Your task to perform on an android device: open app "LiveIn - Share Your Moment" Image 0: 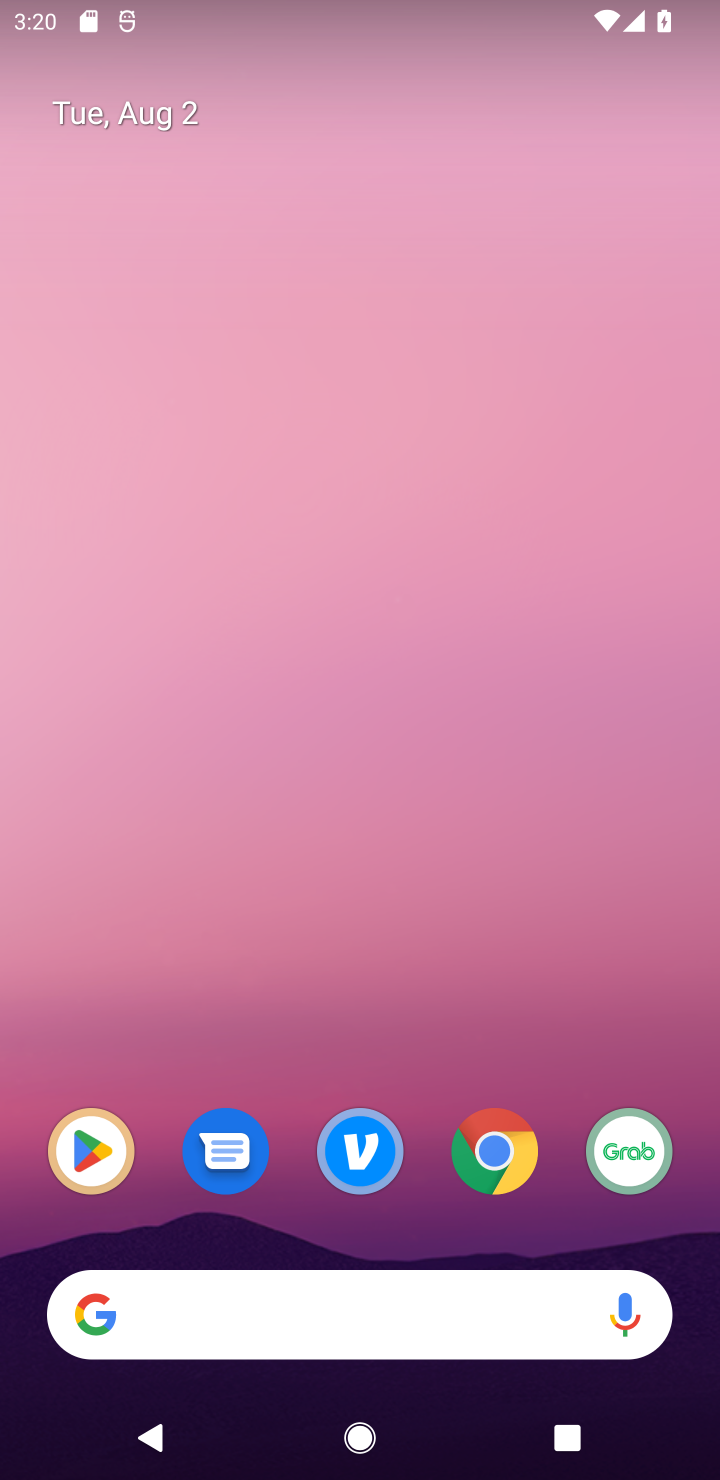
Step 0: drag from (503, 938) to (576, 329)
Your task to perform on an android device: open app "LiveIn - Share Your Moment" Image 1: 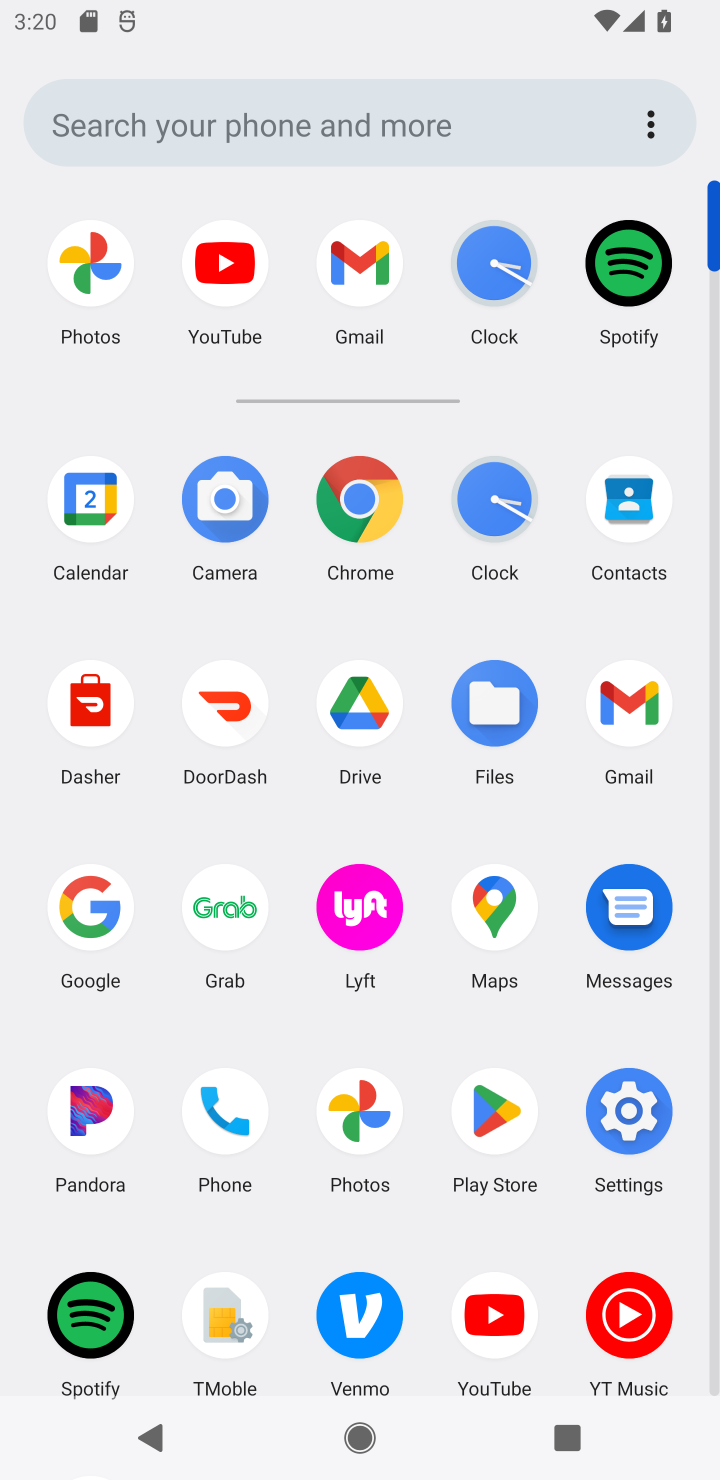
Step 1: drag from (396, 1054) to (442, 736)
Your task to perform on an android device: open app "LiveIn - Share Your Moment" Image 2: 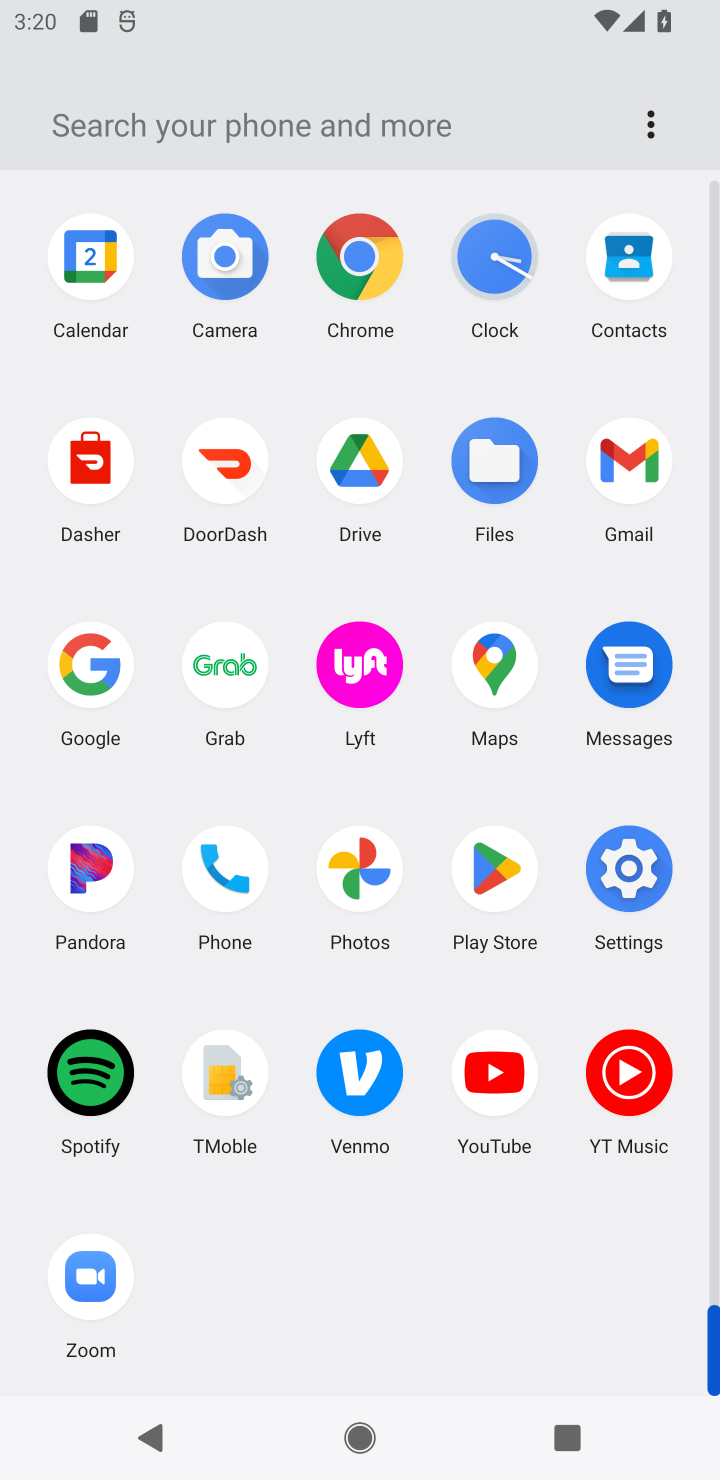
Step 2: drag from (358, 970) to (396, 1358)
Your task to perform on an android device: open app "LiveIn - Share Your Moment" Image 3: 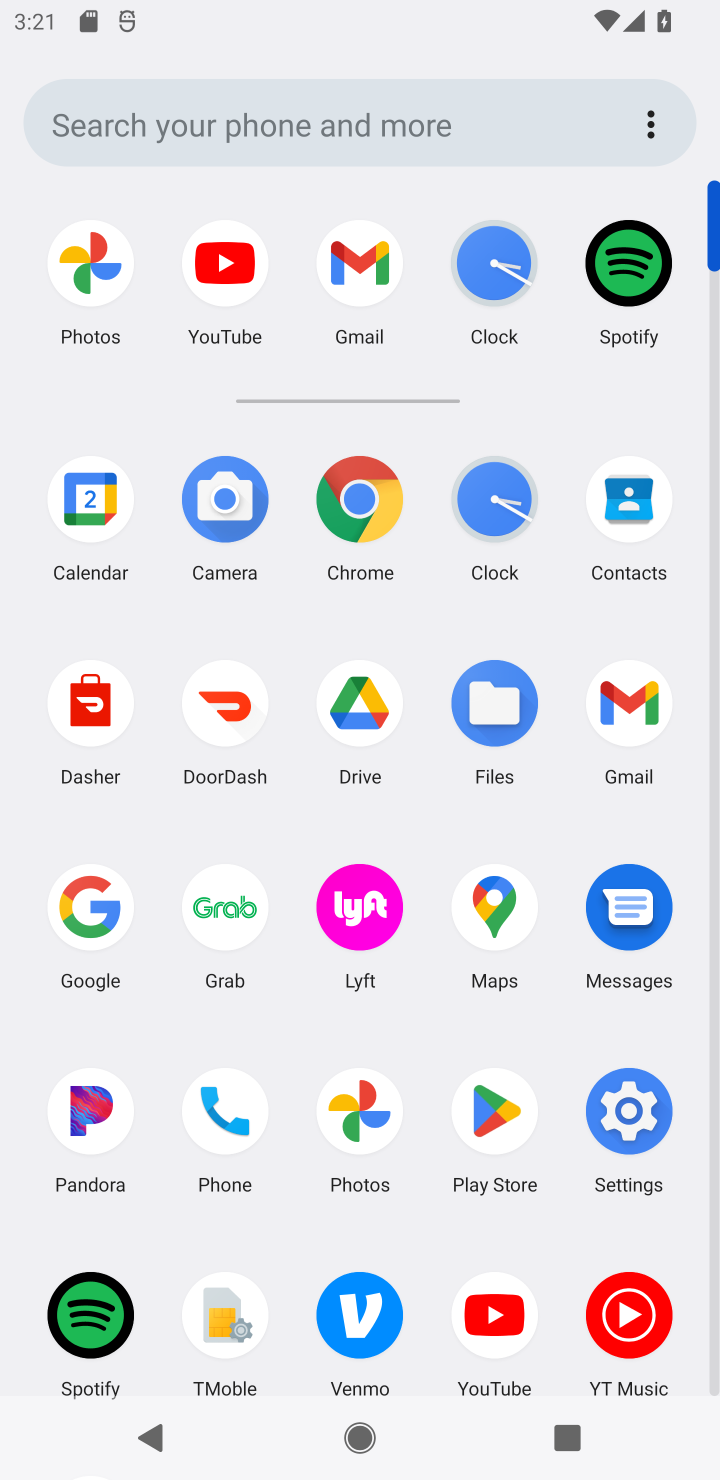
Step 3: click (500, 1125)
Your task to perform on an android device: open app "LiveIn - Share Your Moment" Image 4: 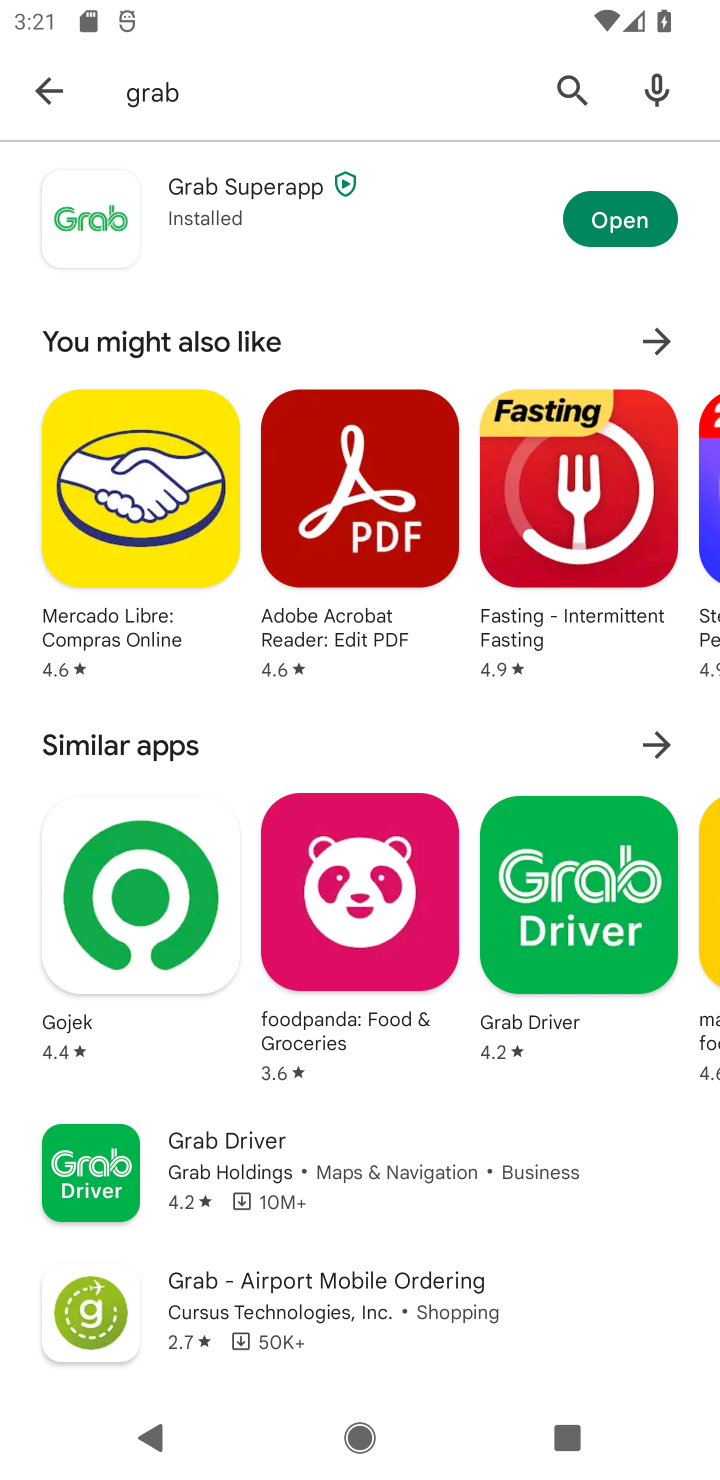
Step 4: click (66, 76)
Your task to perform on an android device: open app "LiveIn - Share Your Moment" Image 5: 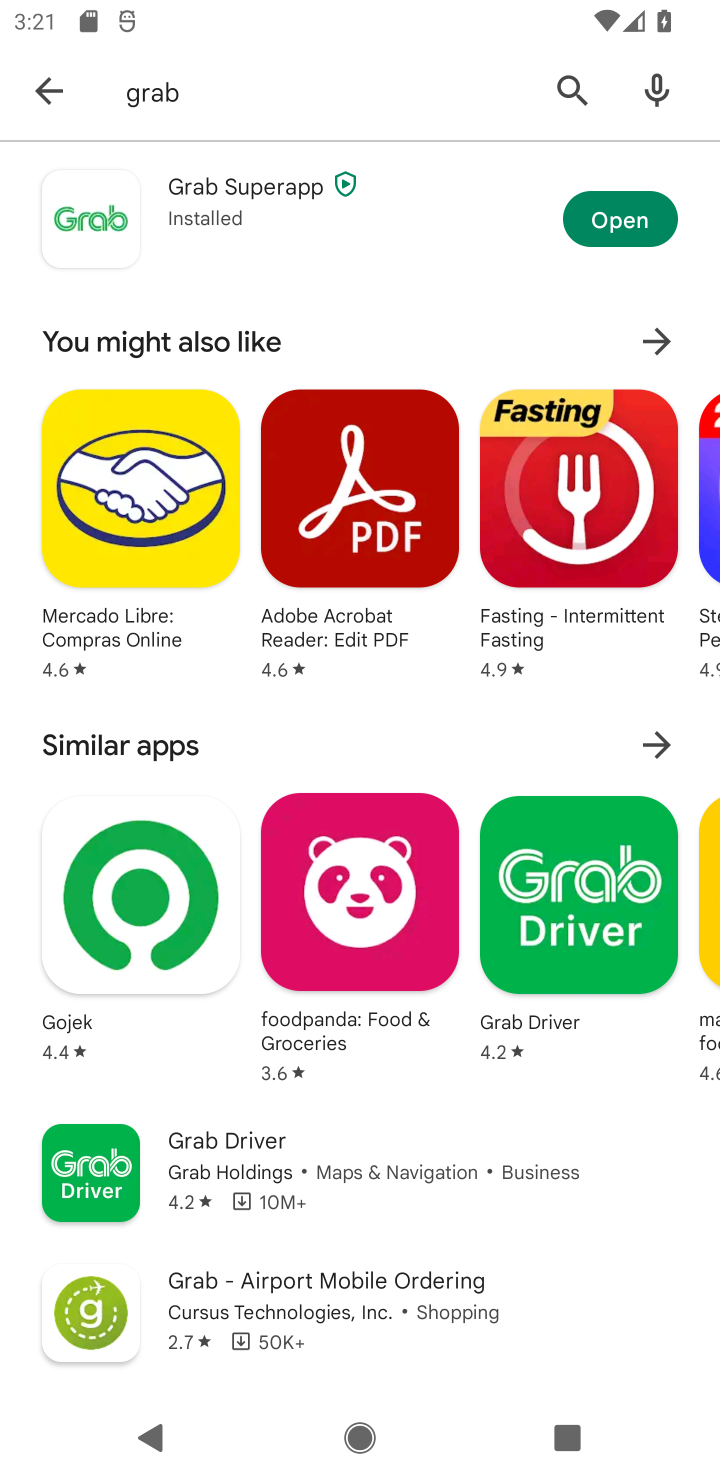
Step 5: click (41, 97)
Your task to perform on an android device: open app "LiveIn - Share Your Moment" Image 6: 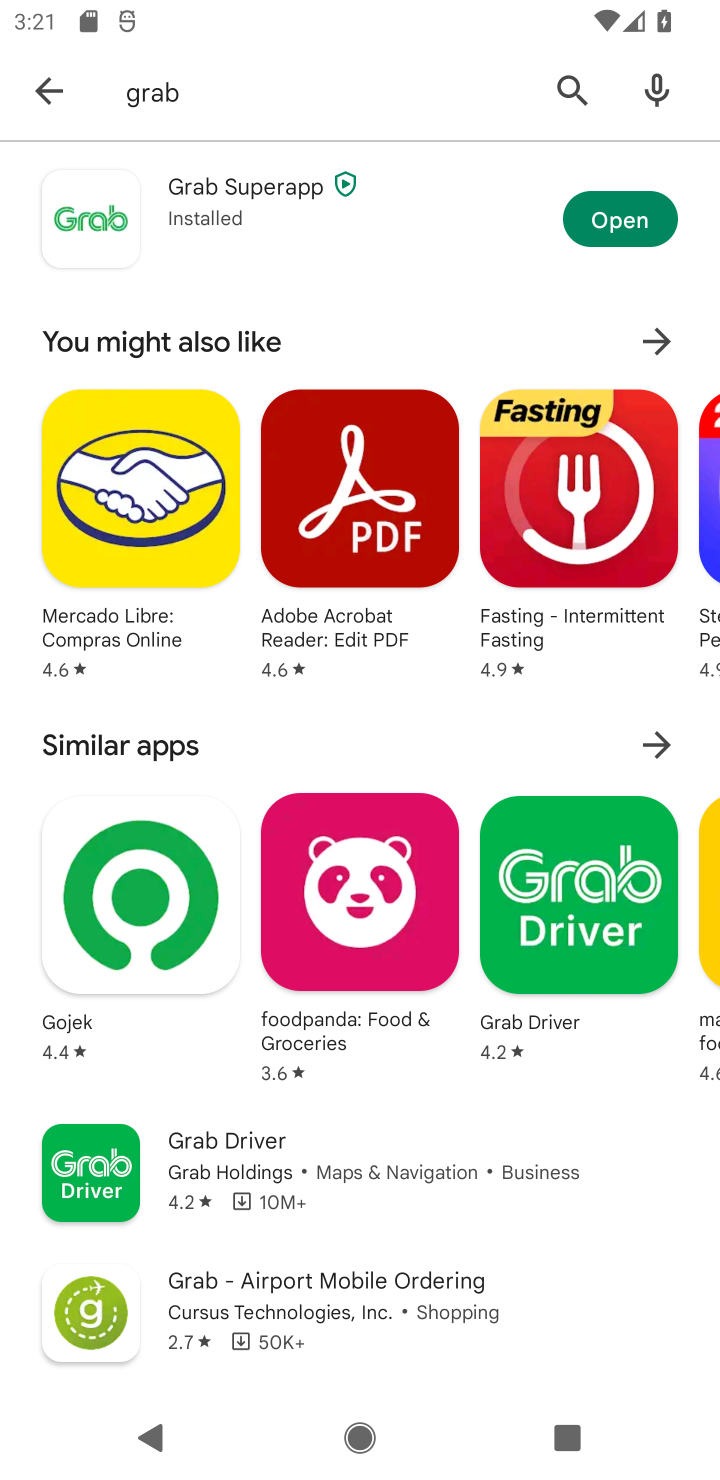
Step 6: click (27, 86)
Your task to perform on an android device: open app "LiveIn - Share Your Moment" Image 7: 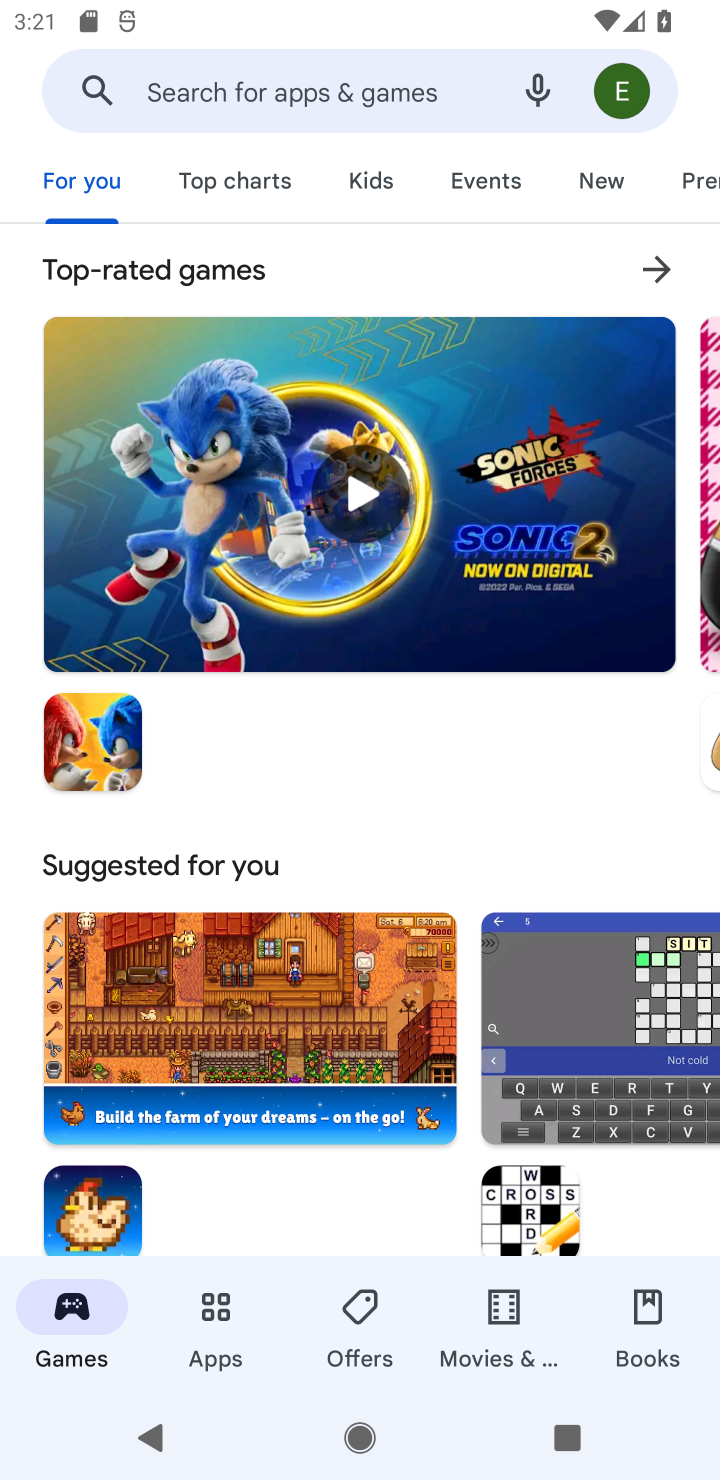
Step 7: click (226, 94)
Your task to perform on an android device: open app "LiveIn - Share Your Moment" Image 8: 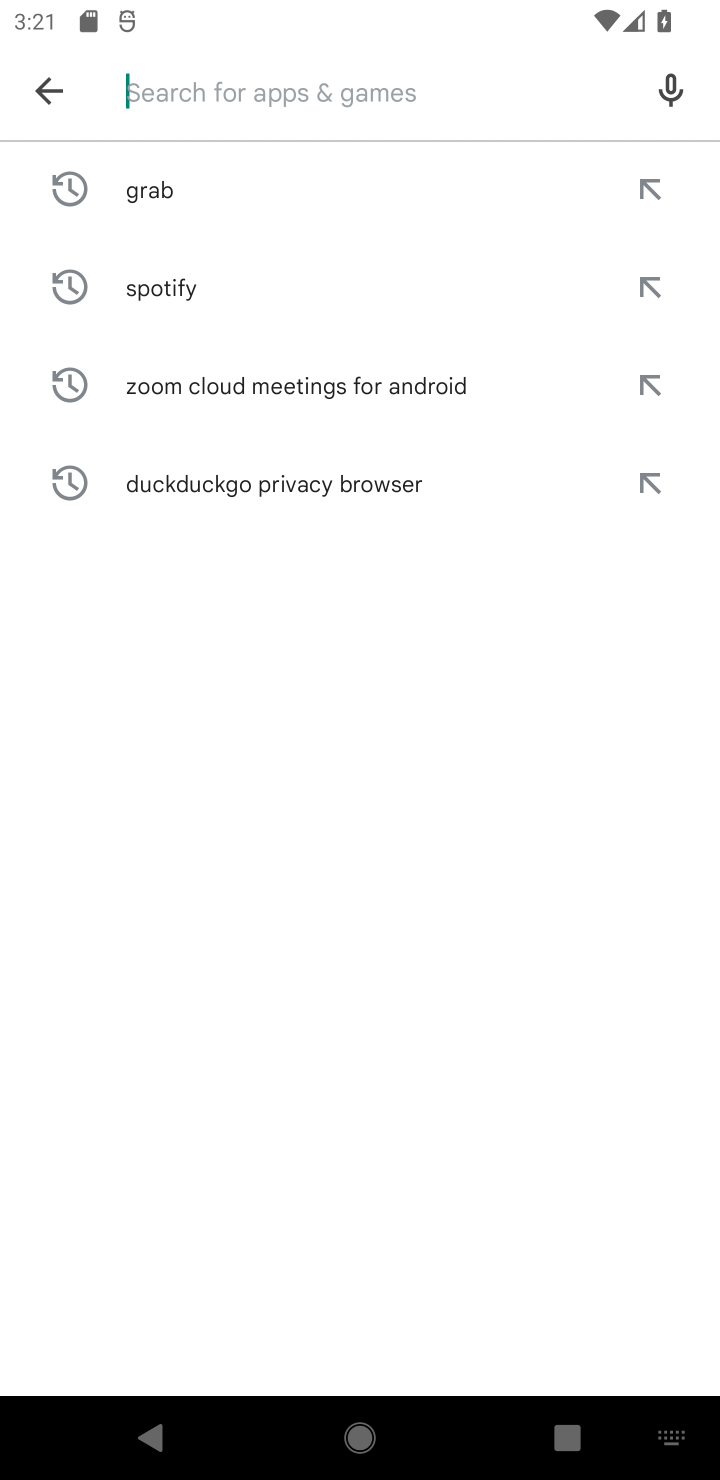
Step 8: type "LiveIn - Share Your Moment"
Your task to perform on an android device: open app "LiveIn - Share Your Moment" Image 9: 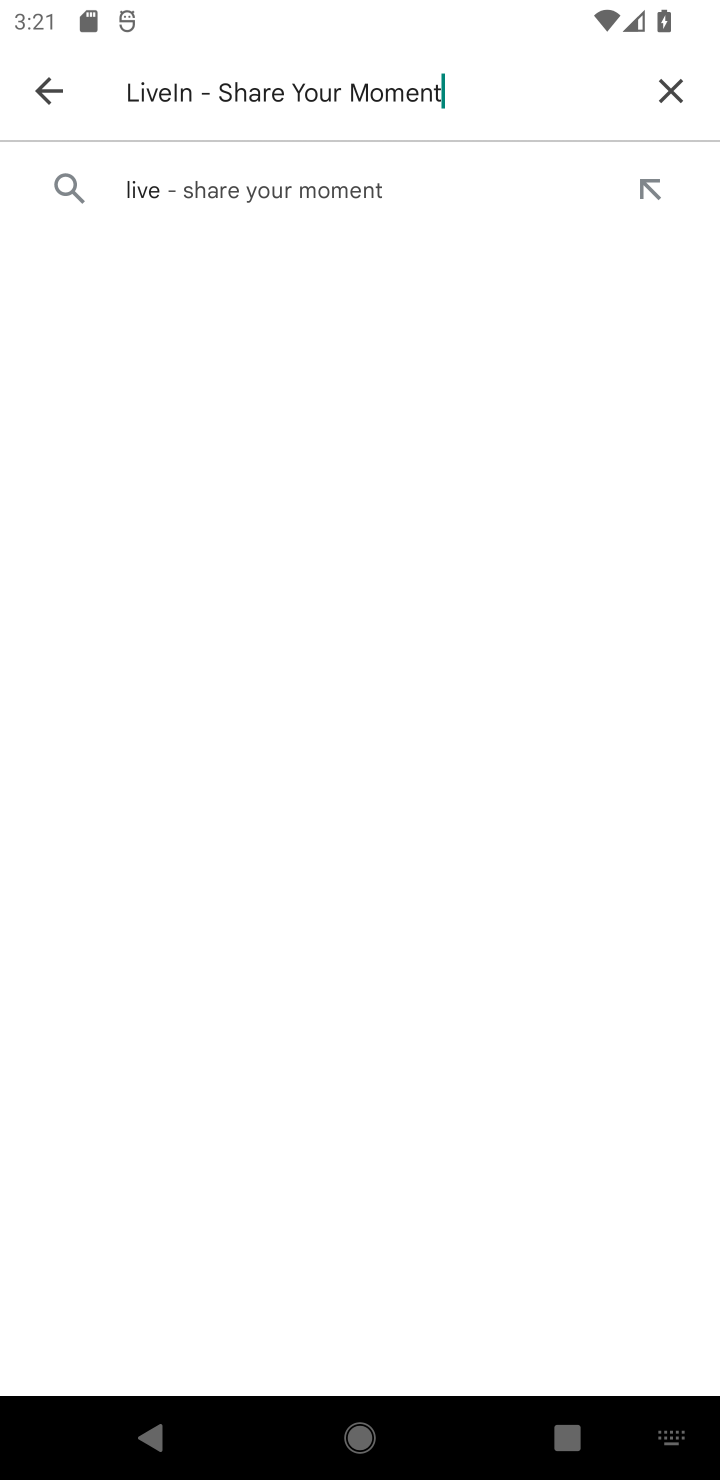
Step 9: click (335, 204)
Your task to perform on an android device: open app "LiveIn - Share Your Moment" Image 10: 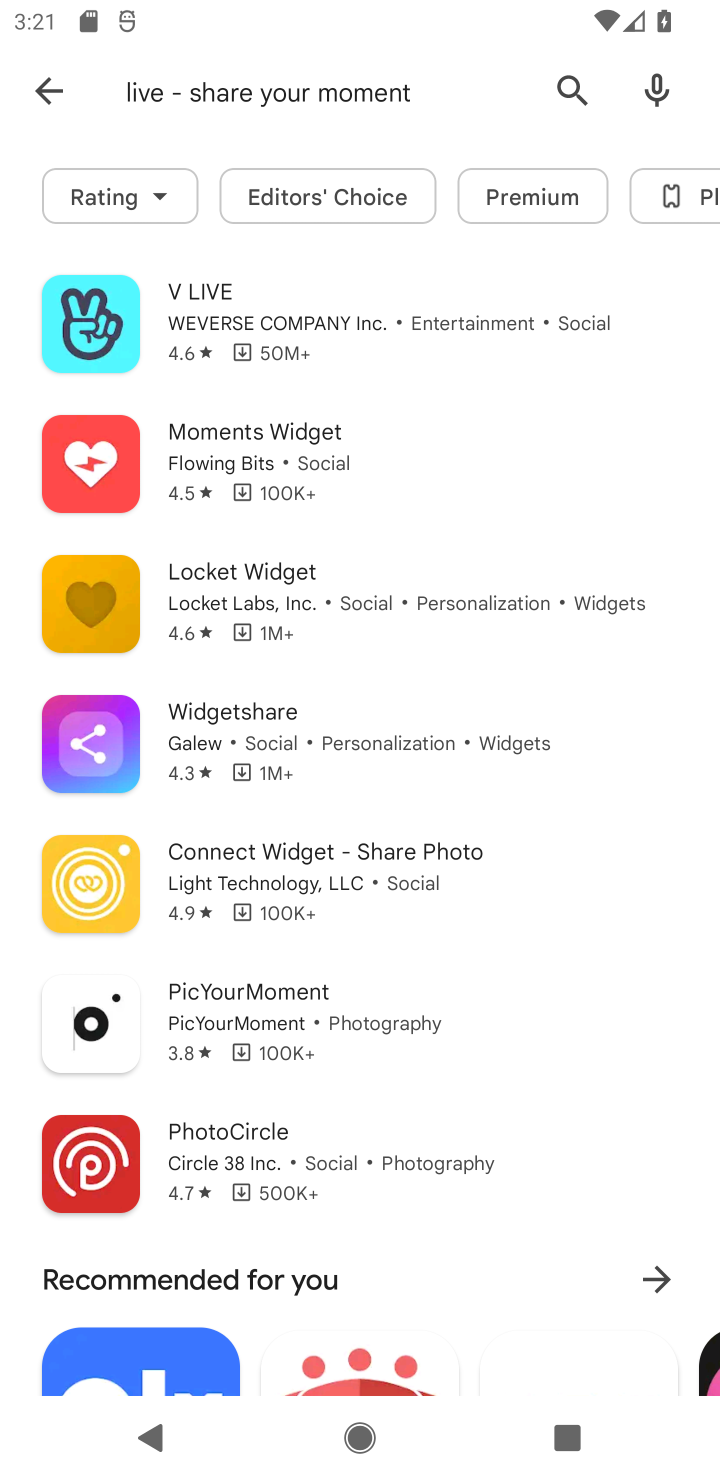
Step 10: click (315, 307)
Your task to perform on an android device: open app "LiveIn - Share Your Moment" Image 11: 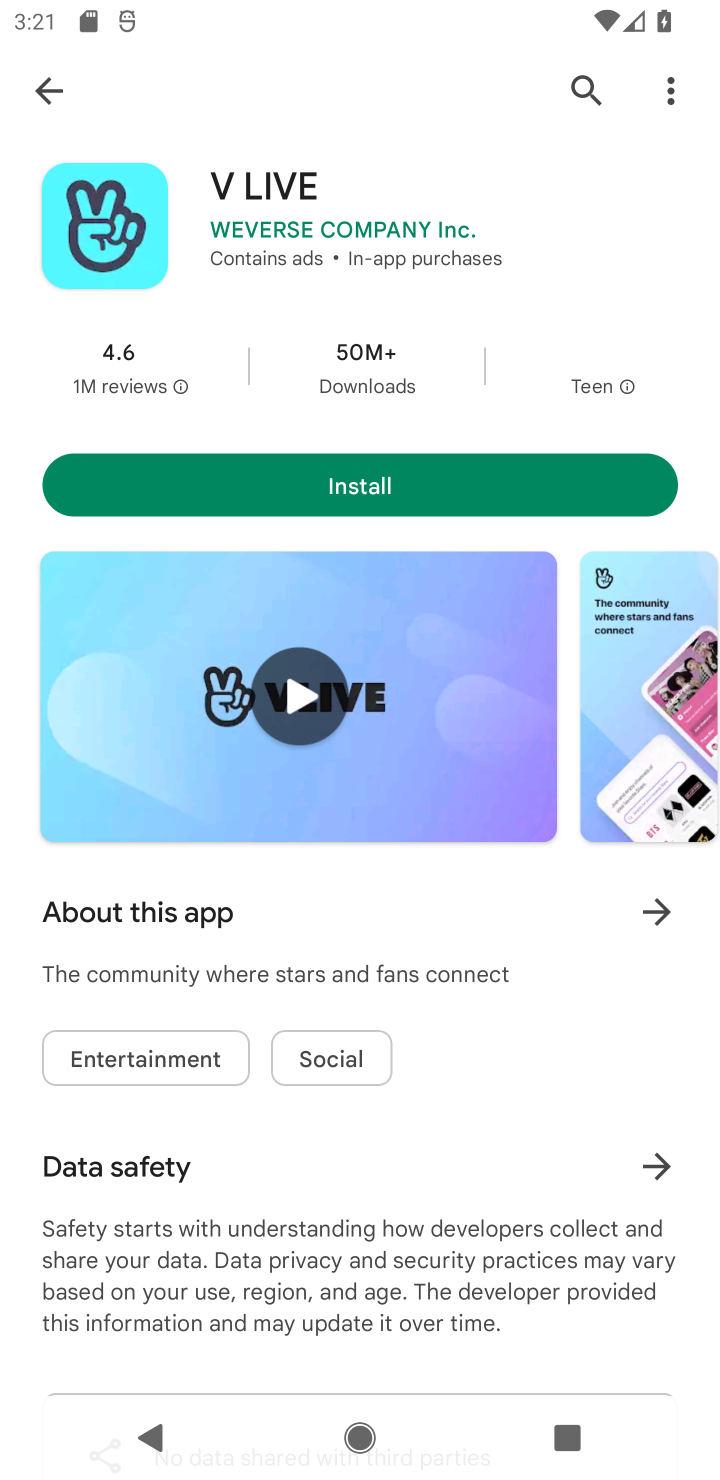
Step 11: task complete